Your task to perform on an android device: Play the last video I watched on Youtube Image 0: 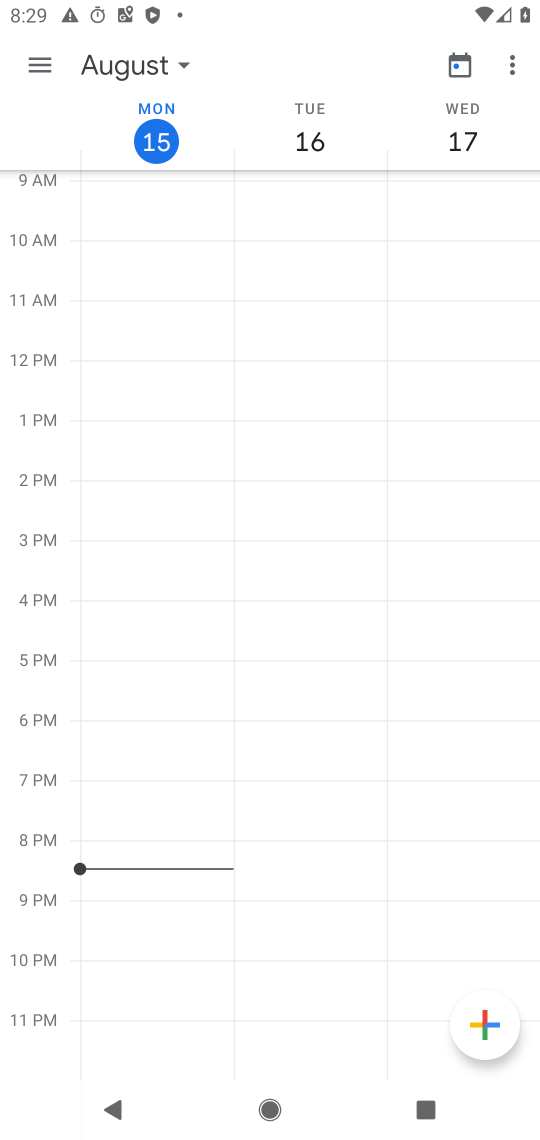
Step 0: press home button
Your task to perform on an android device: Play the last video I watched on Youtube Image 1: 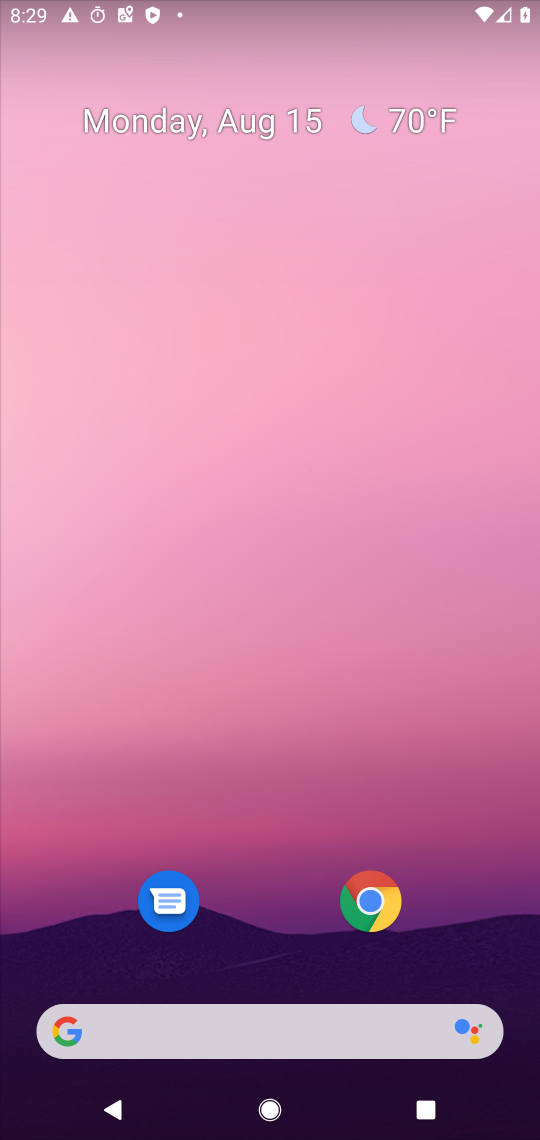
Step 1: drag from (246, 951) to (322, 1)
Your task to perform on an android device: Play the last video I watched on Youtube Image 2: 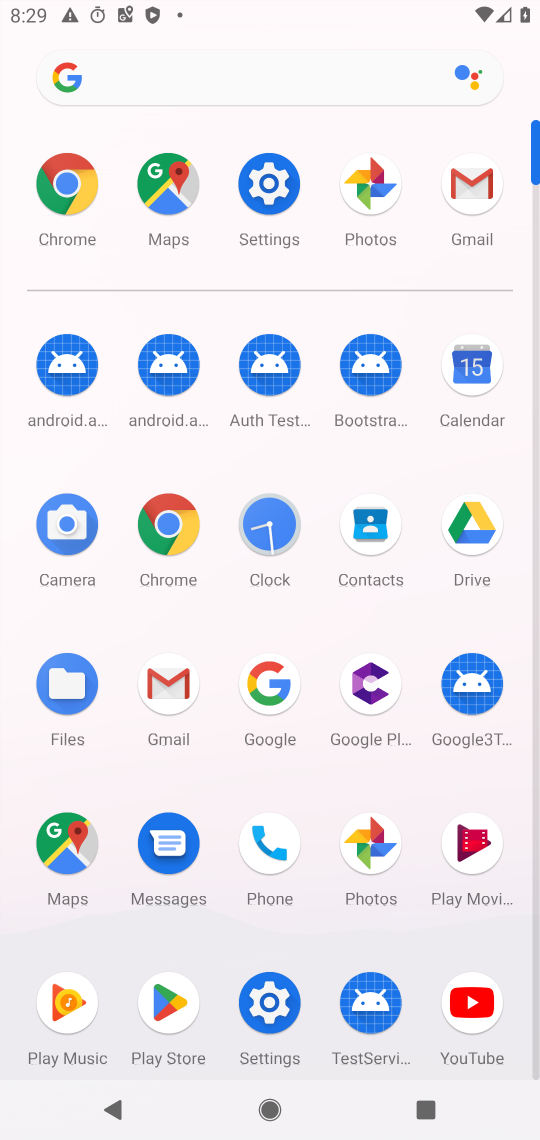
Step 2: click (467, 989)
Your task to perform on an android device: Play the last video I watched on Youtube Image 3: 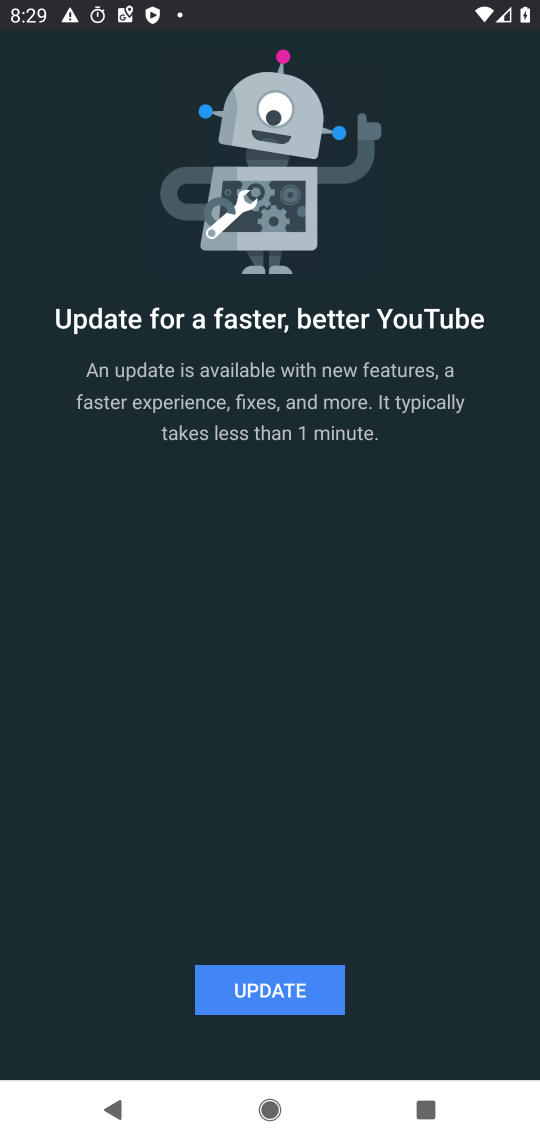
Step 3: click (258, 994)
Your task to perform on an android device: Play the last video I watched on Youtube Image 4: 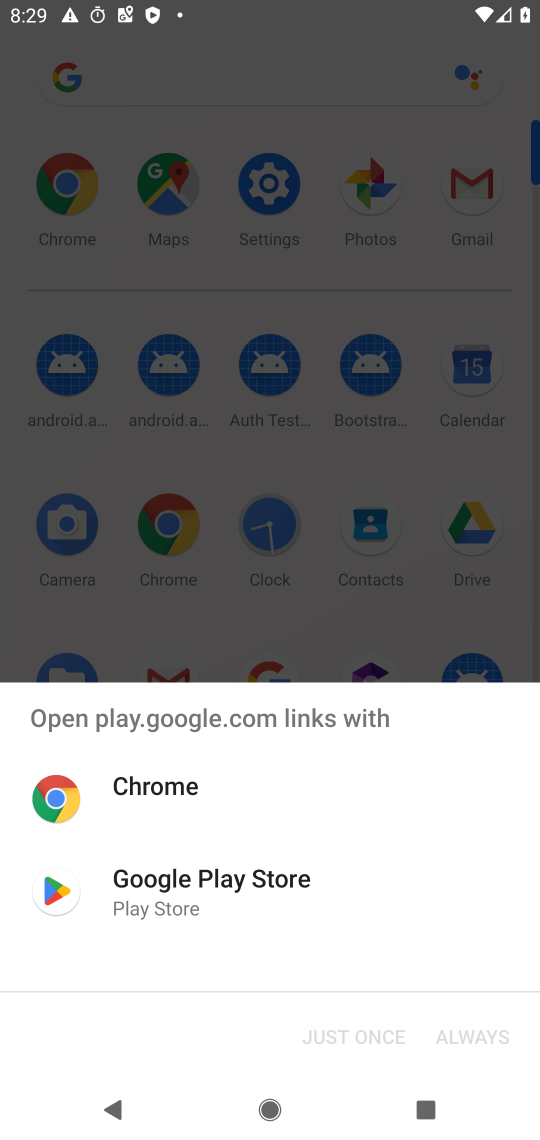
Step 4: click (229, 937)
Your task to perform on an android device: Play the last video I watched on Youtube Image 5: 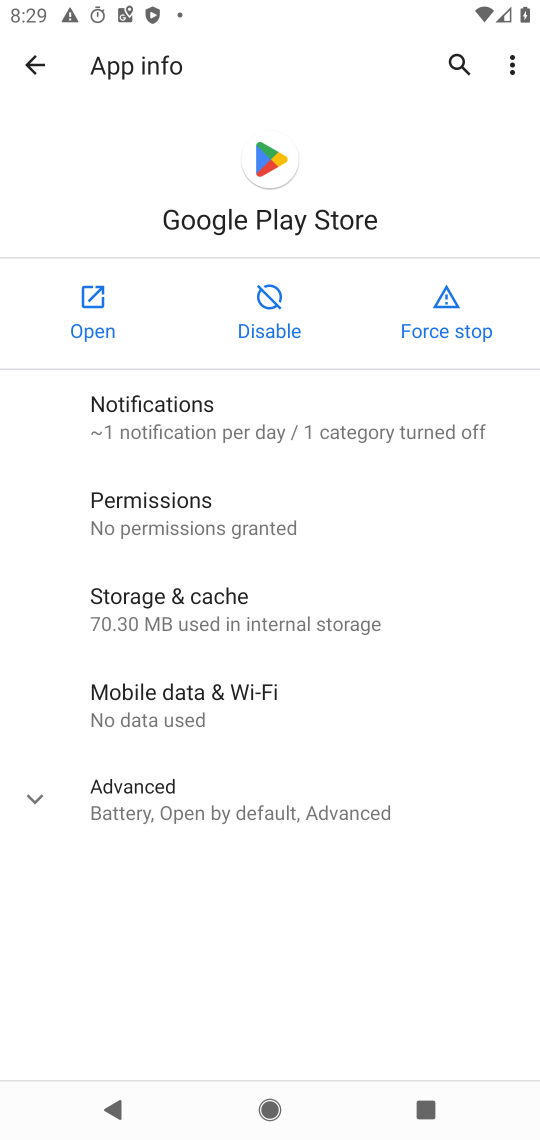
Step 5: click (38, 57)
Your task to perform on an android device: Play the last video I watched on Youtube Image 6: 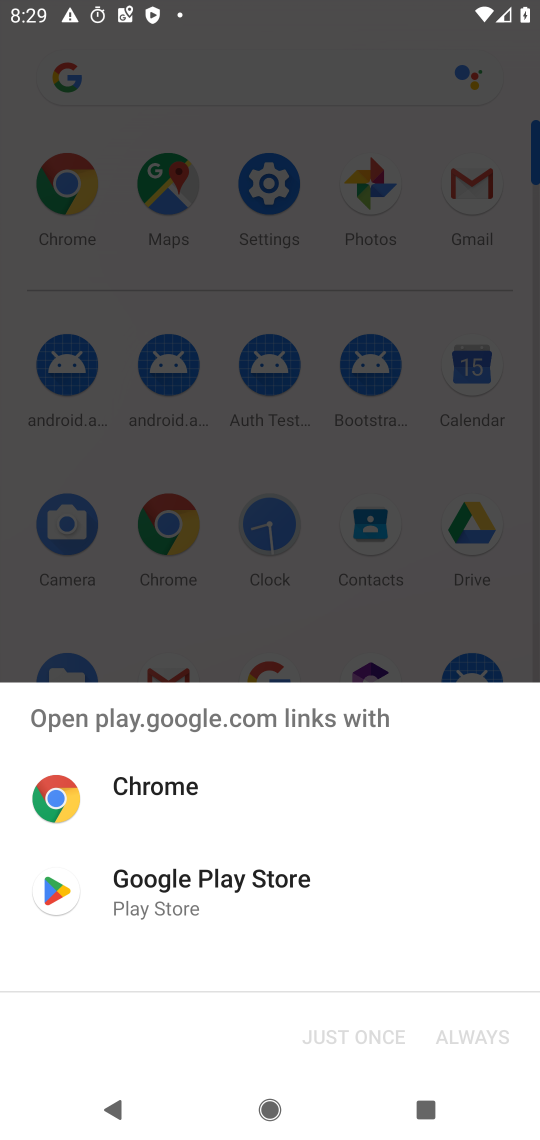
Step 6: click (156, 894)
Your task to perform on an android device: Play the last video I watched on Youtube Image 7: 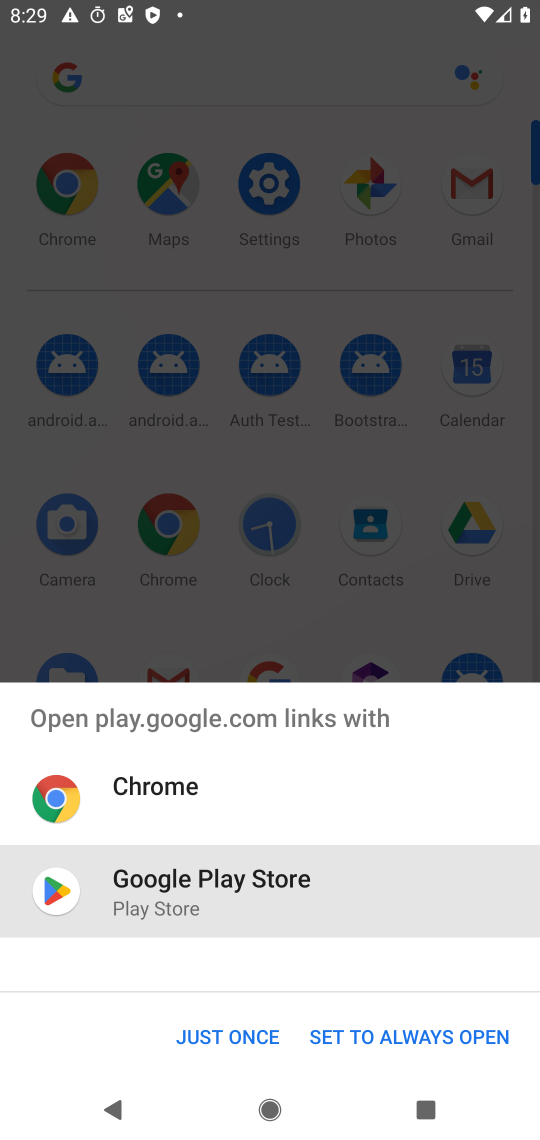
Step 7: click (229, 1041)
Your task to perform on an android device: Play the last video I watched on Youtube Image 8: 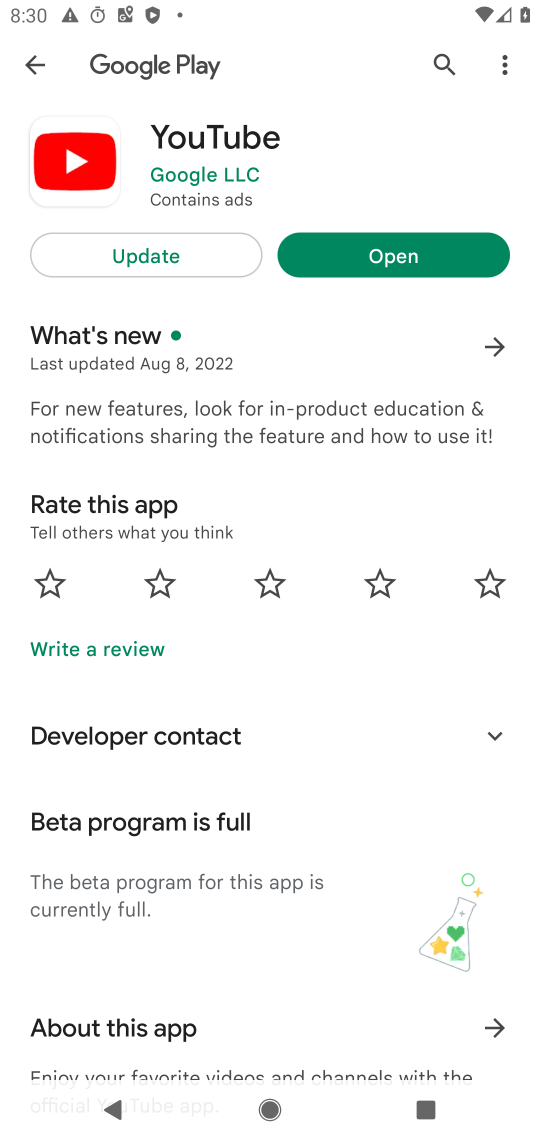
Step 8: click (156, 251)
Your task to perform on an android device: Play the last video I watched on Youtube Image 9: 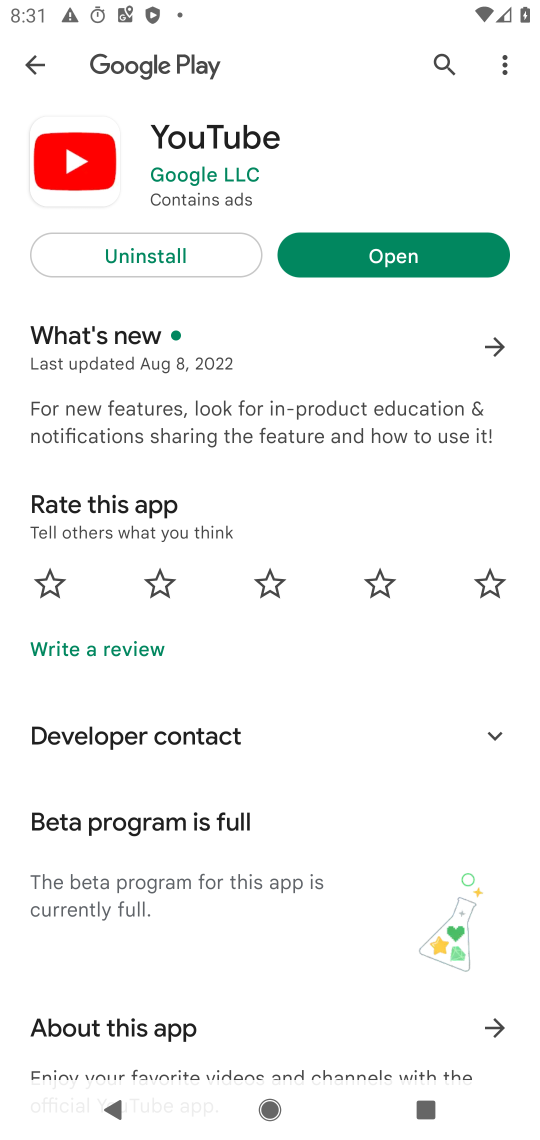
Step 9: click (407, 253)
Your task to perform on an android device: Play the last video I watched on Youtube Image 10: 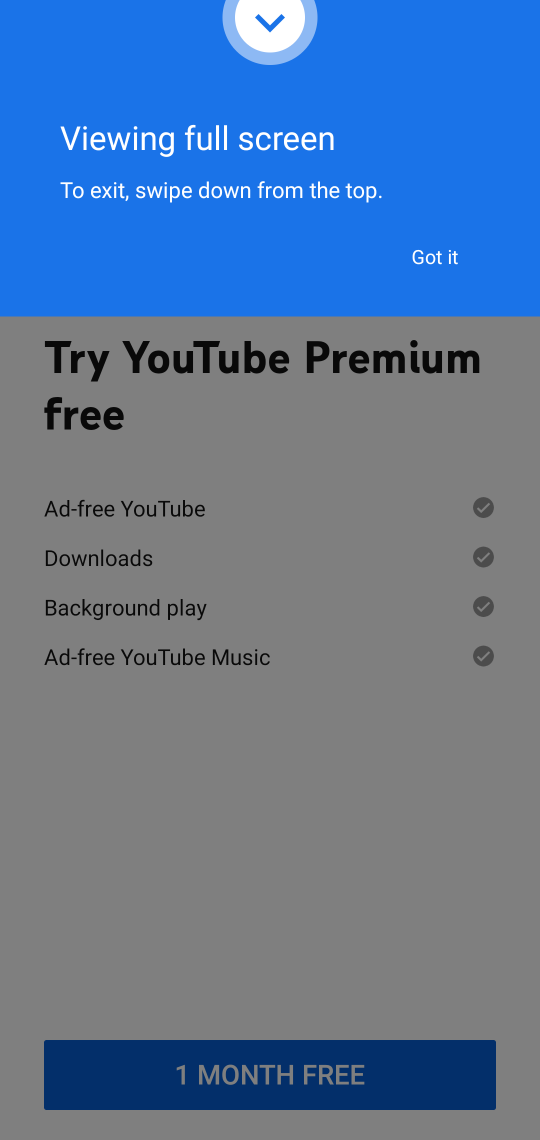
Step 10: click (471, 72)
Your task to perform on an android device: Play the last video I watched on Youtube Image 11: 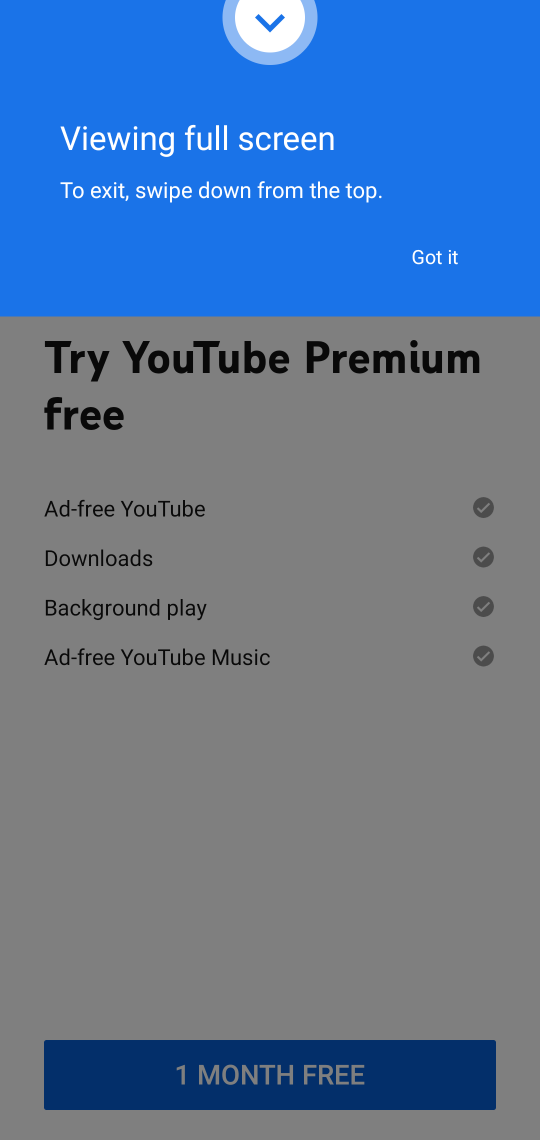
Step 11: click (454, 266)
Your task to perform on an android device: Play the last video I watched on Youtube Image 12: 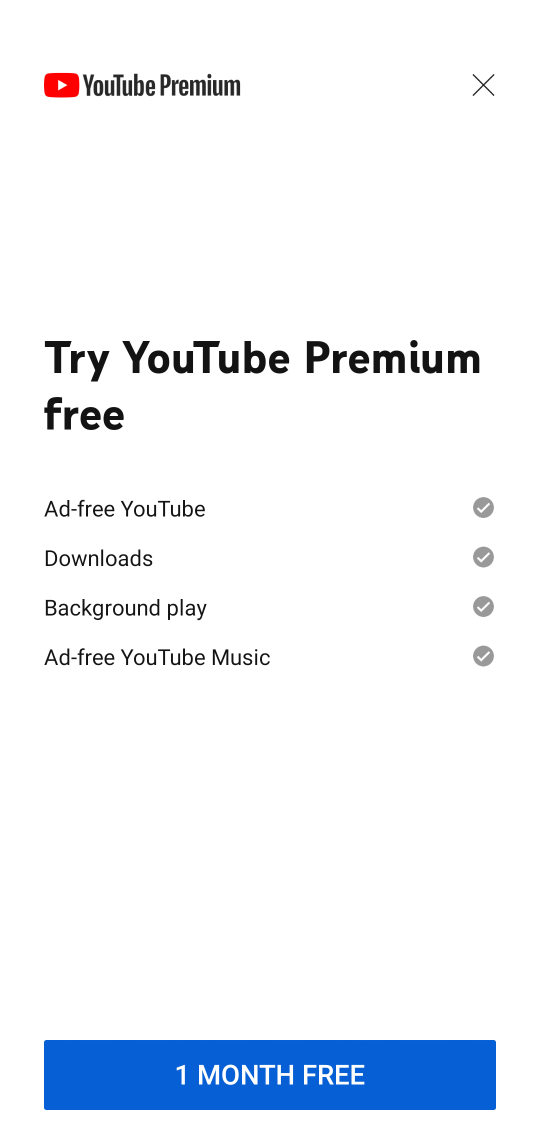
Step 12: click (480, 87)
Your task to perform on an android device: Play the last video I watched on Youtube Image 13: 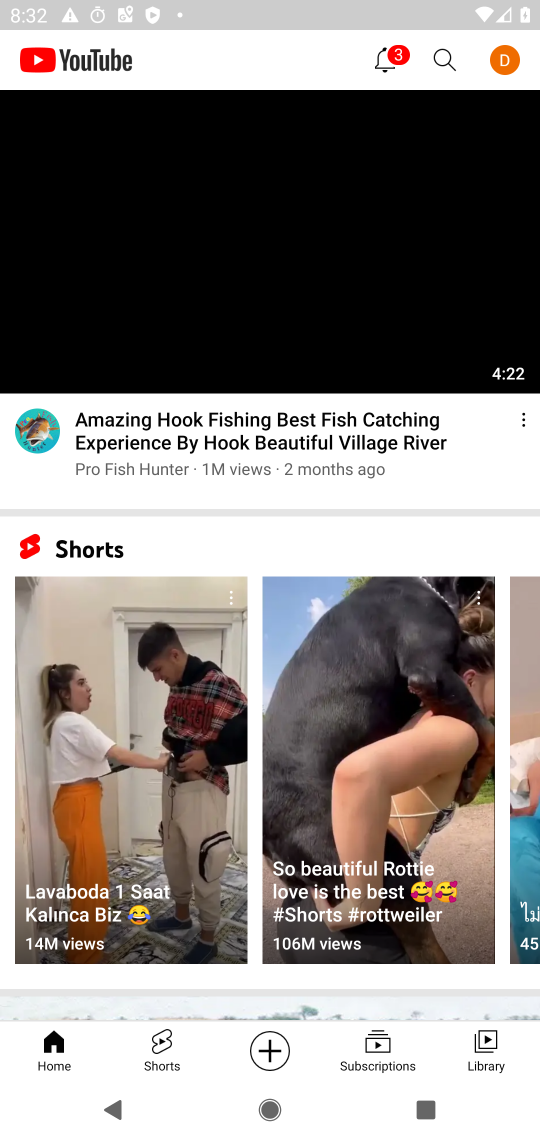
Step 13: click (486, 1050)
Your task to perform on an android device: Play the last video I watched on Youtube Image 14: 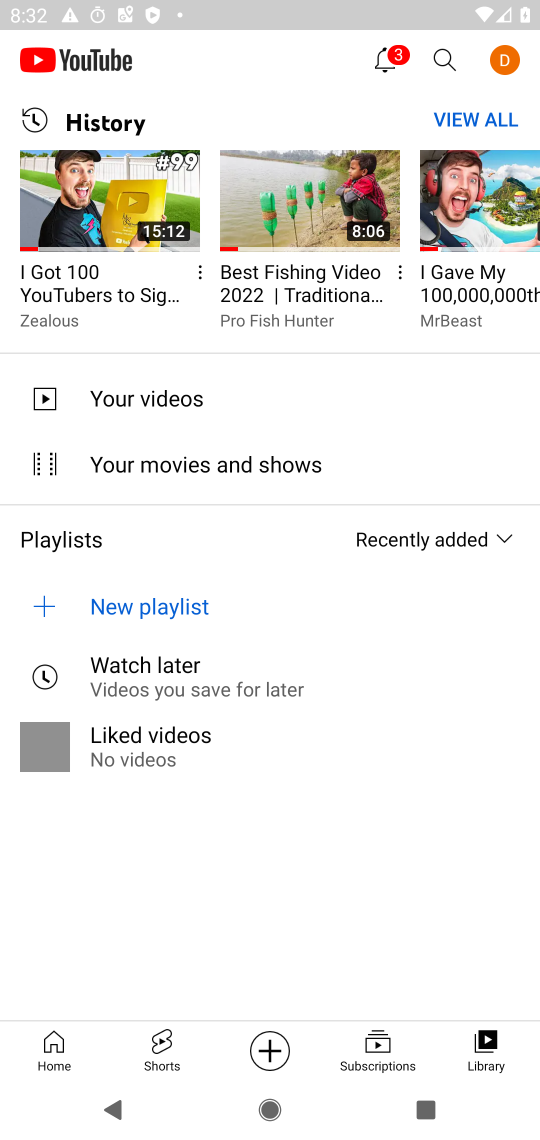
Step 14: click (119, 223)
Your task to perform on an android device: Play the last video I watched on Youtube Image 15: 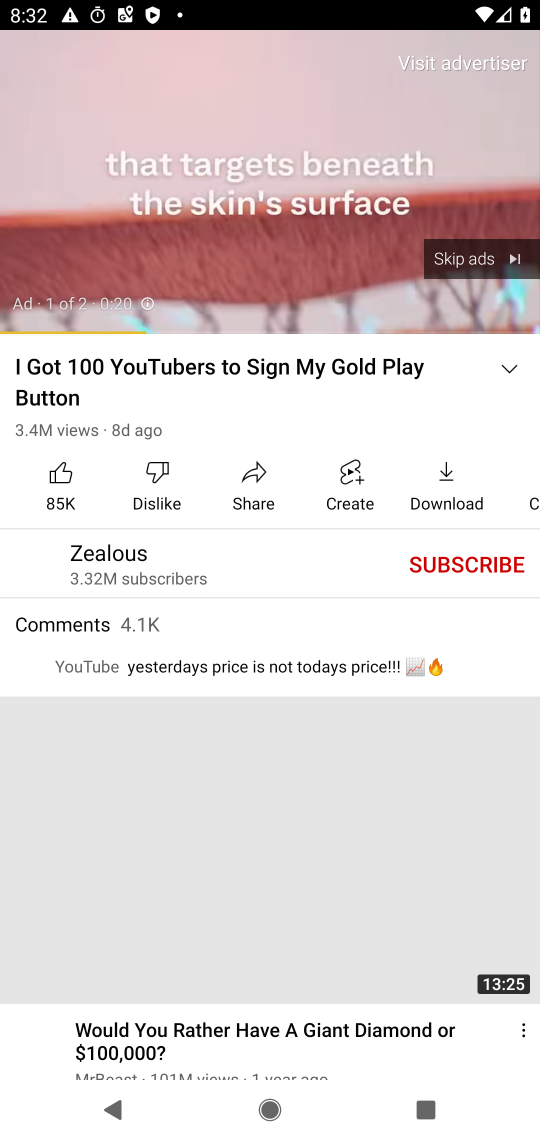
Step 15: click (487, 253)
Your task to perform on an android device: Play the last video I watched on Youtube Image 16: 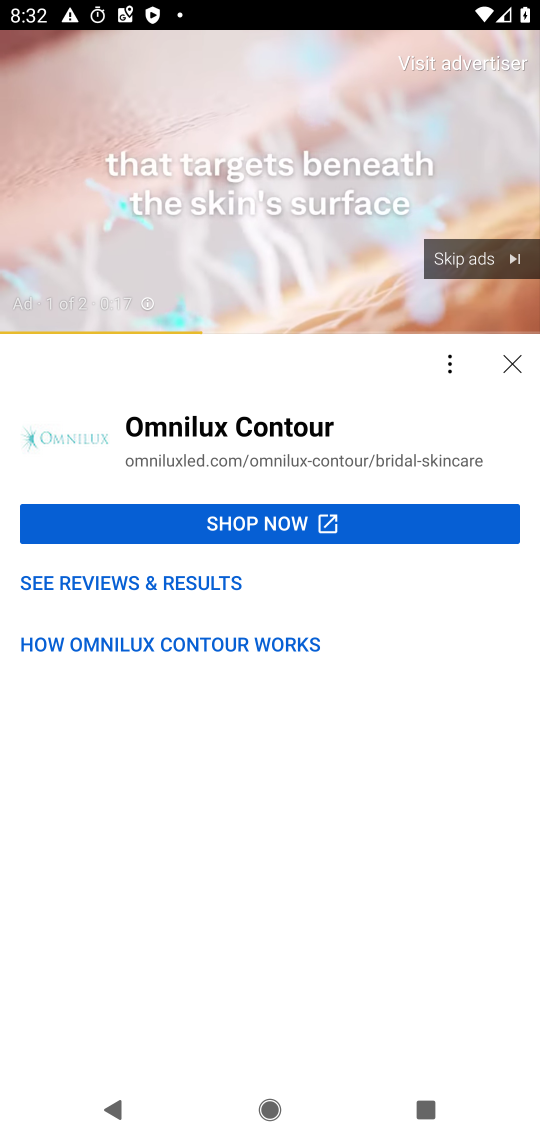
Step 16: click (484, 249)
Your task to perform on an android device: Play the last video I watched on Youtube Image 17: 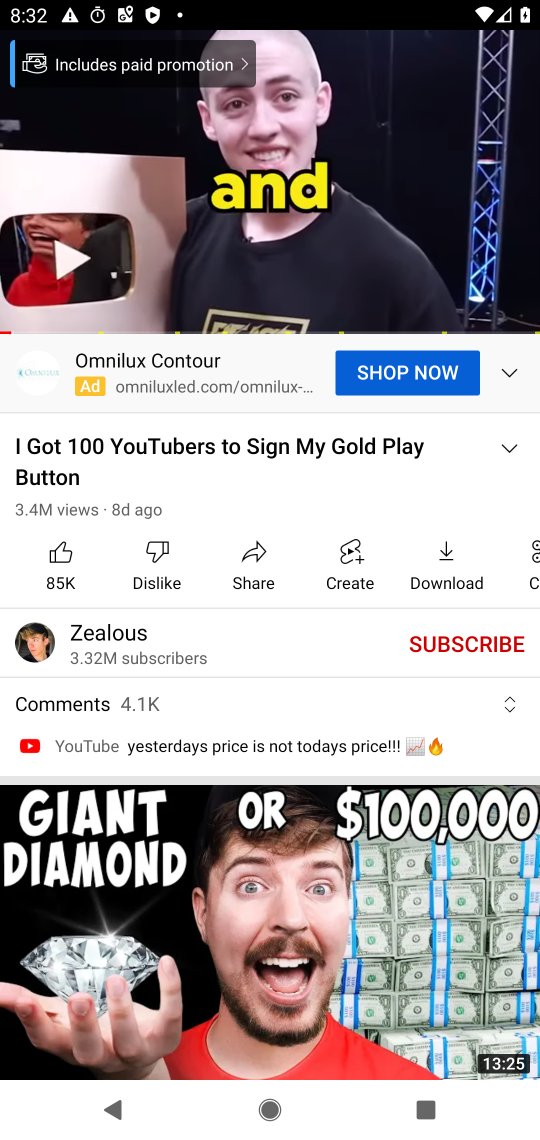
Step 17: task complete